Your task to perform on an android device: Search for flights from Barcelona to Boston Image 0: 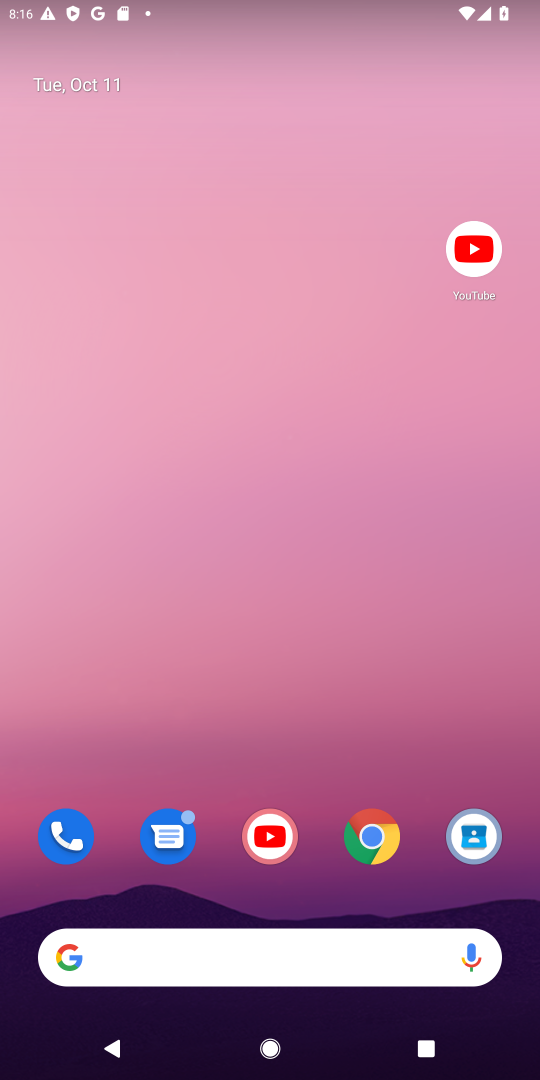
Step 0: click (383, 841)
Your task to perform on an android device: Search for flights from Barcelona to Boston Image 1: 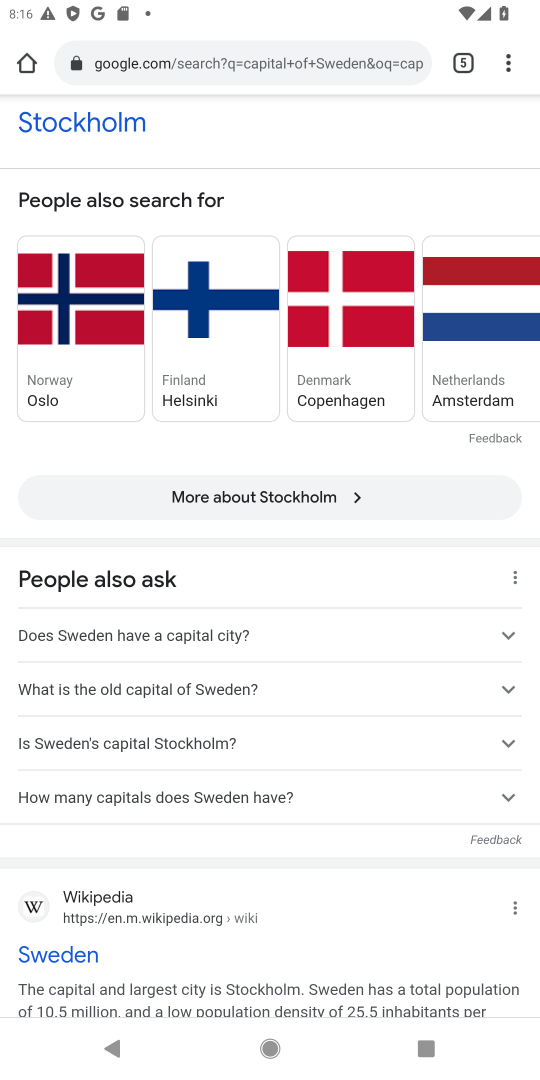
Step 1: click (304, 54)
Your task to perform on an android device: Search for flights from Barcelona to Boston Image 2: 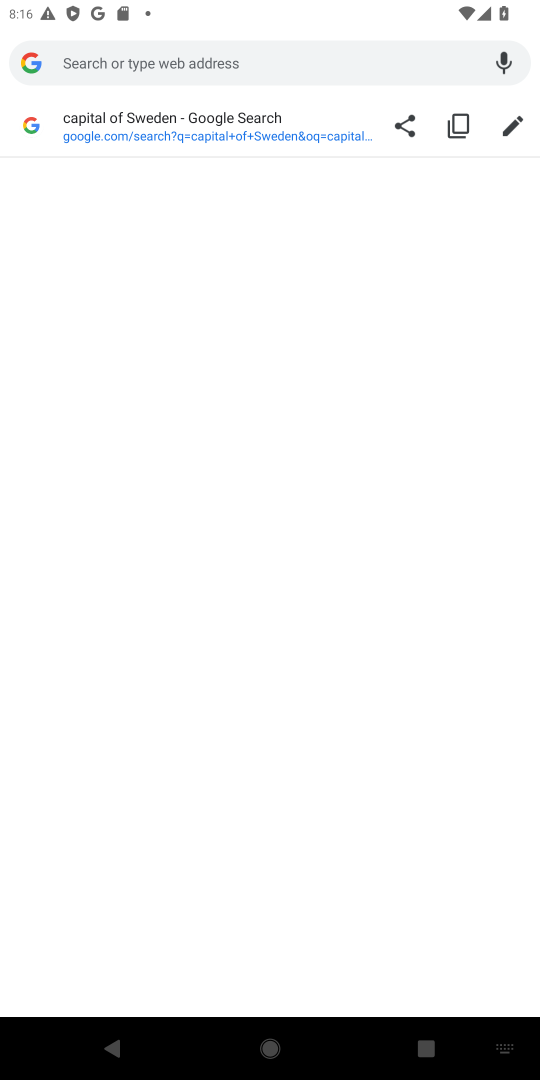
Step 2: type "flights from Barcelona to Boston"
Your task to perform on an android device: Search for flights from Barcelona to Boston Image 3: 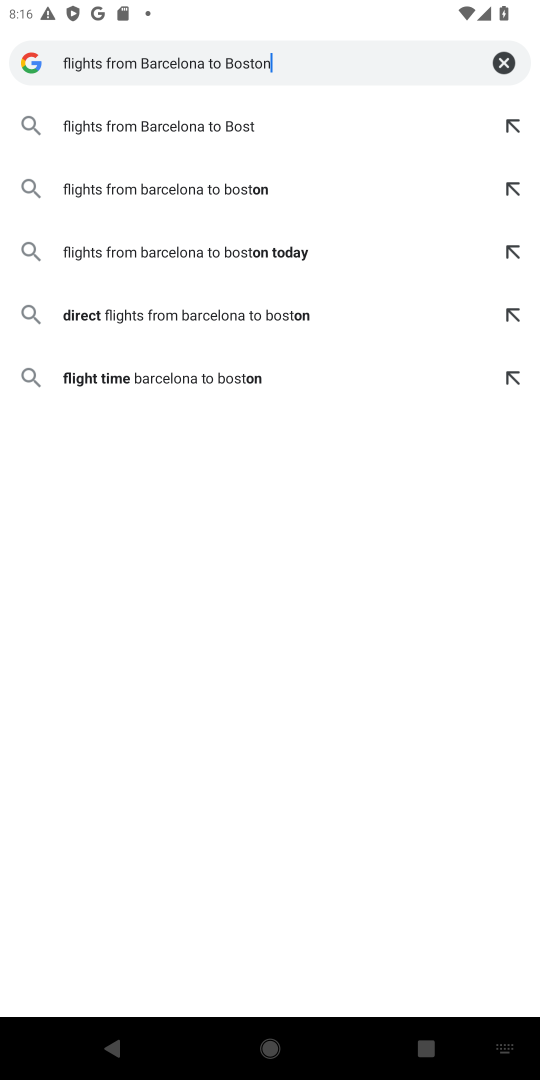
Step 3: press enter
Your task to perform on an android device: Search for flights from Barcelona to Boston Image 4: 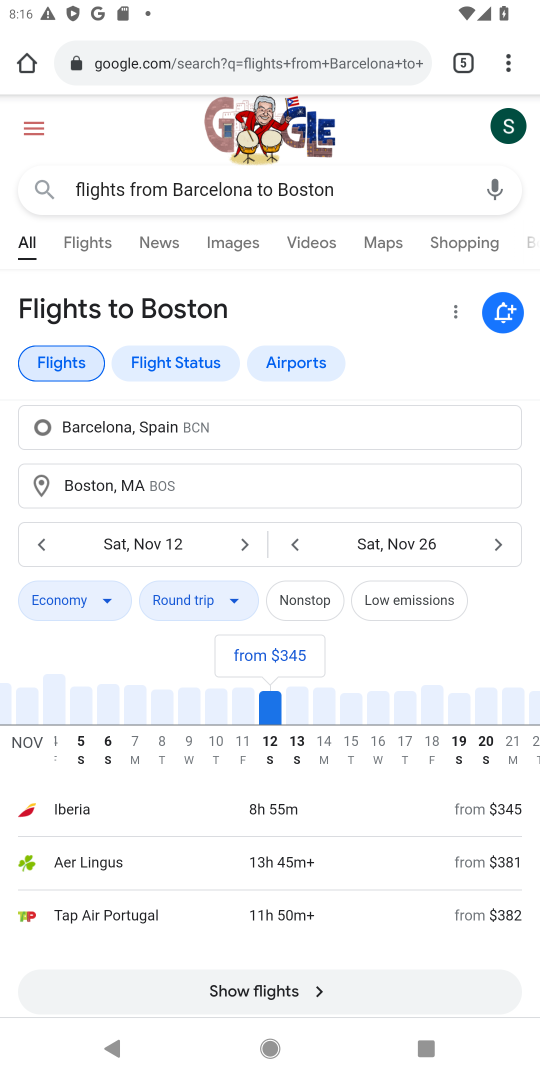
Step 4: drag from (354, 913) to (517, 369)
Your task to perform on an android device: Search for flights from Barcelona to Boston Image 5: 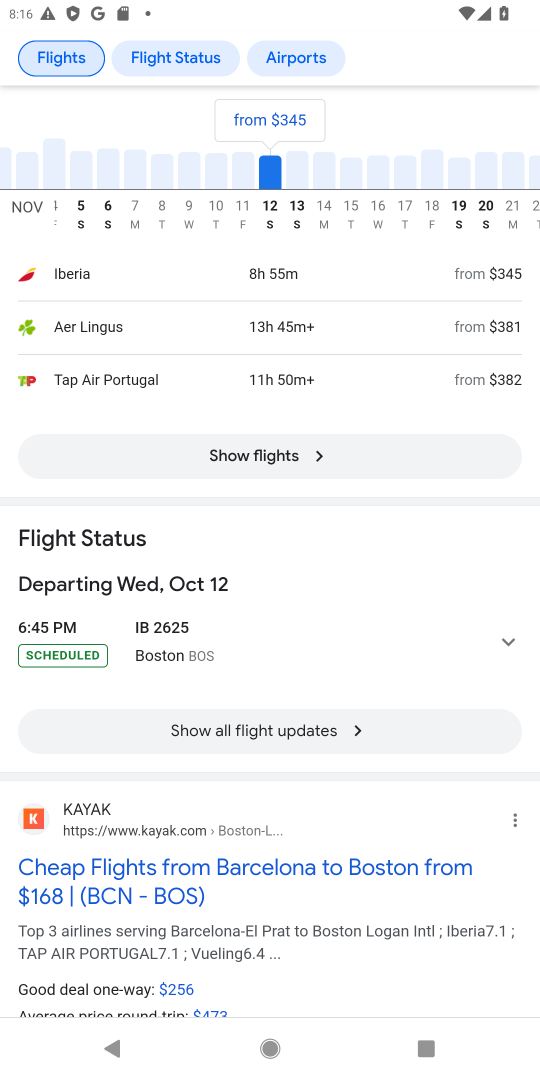
Step 5: click (309, 438)
Your task to perform on an android device: Search for flights from Barcelona to Boston Image 6: 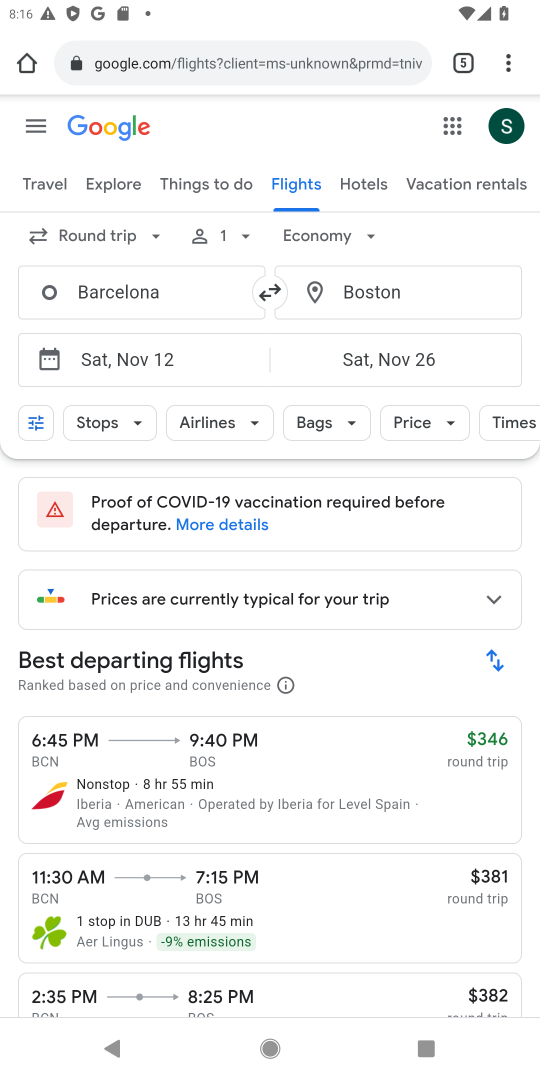
Step 6: task complete